Your task to perform on an android device: turn on the 12-hour format for clock Image 0: 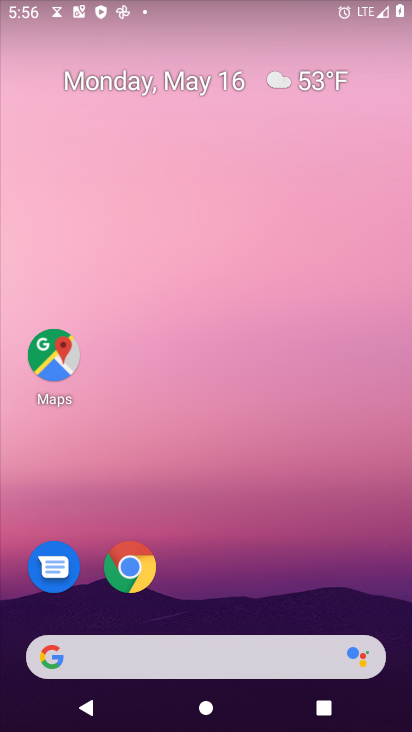
Step 0: drag from (234, 623) to (172, 32)
Your task to perform on an android device: turn on the 12-hour format for clock Image 1: 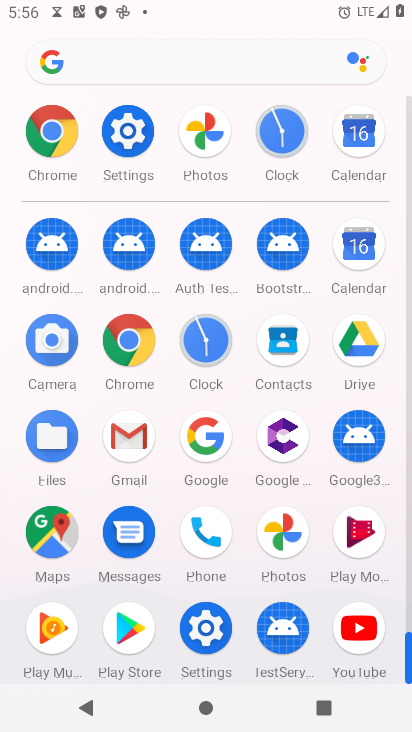
Step 1: click (218, 336)
Your task to perform on an android device: turn on the 12-hour format for clock Image 2: 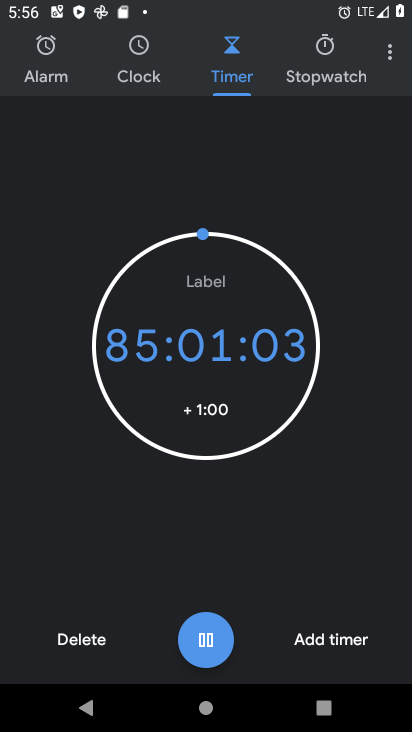
Step 2: click (387, 51)
Your task to perform on an android device: turn on the 12-hour format for clock Image 3: 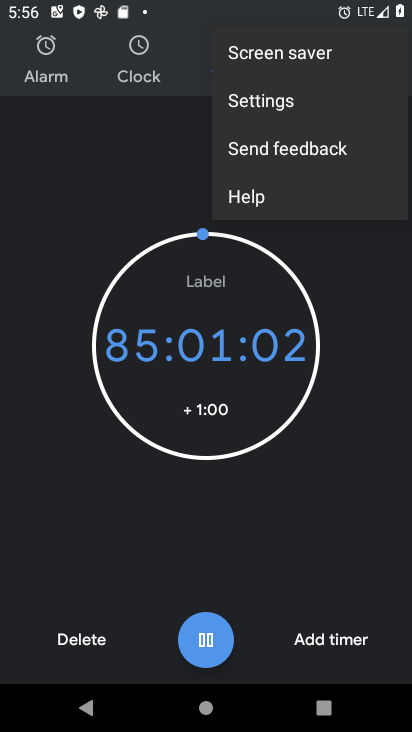
Step 3: click (281, 98)
Your task to perform on an android device: turn on the 12-hour format for clock Image 4: 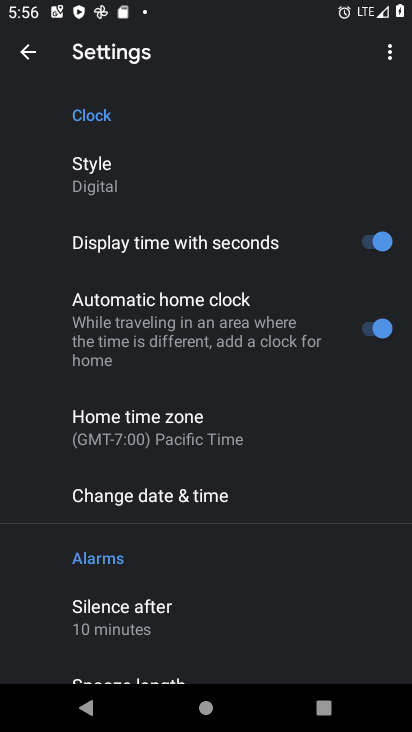
Step 4: drag from (273, 591) to (245, 310)
Your task to perform on an android device: turn on the 12-hour format for clock Image 5: 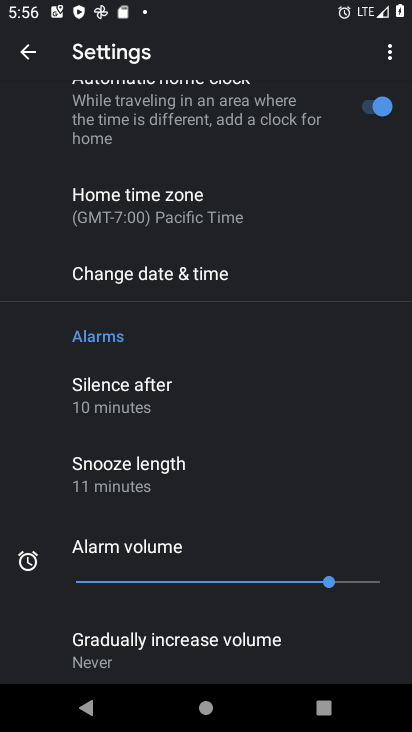
Step 5: click (176, 385)
Your task to perform on an android device: turn on the 12-hour format for clock Image 6: 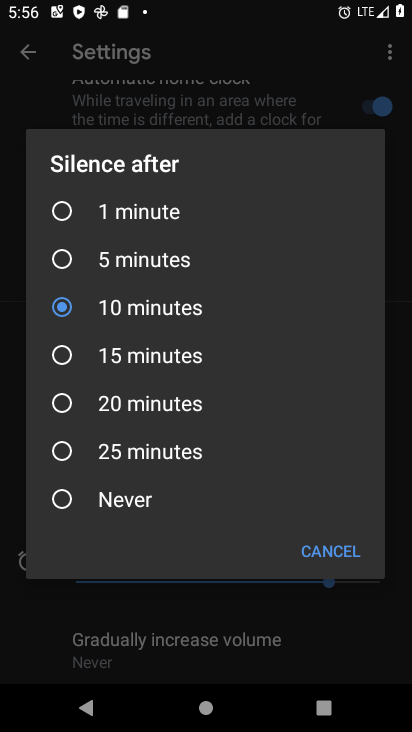
Step 6: click (326, 548)
Your task to perform on an android device: turn on the 12-hour format for clock Image 7: 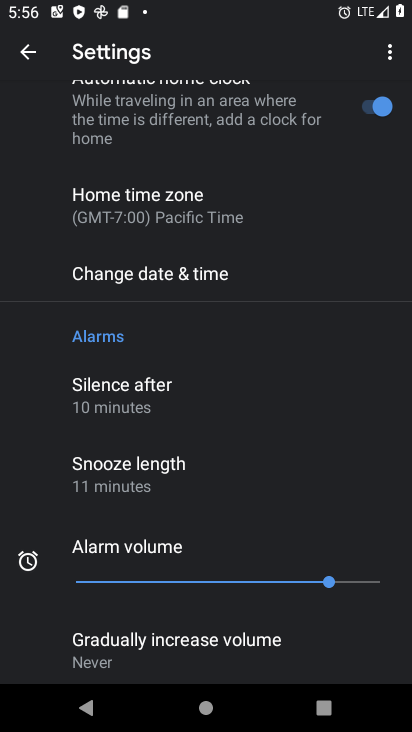
Step 7: drag from (275, 205) to (367, 542)
Your task to perform on an android device: turn on the 12-hour format for clock Image 8: 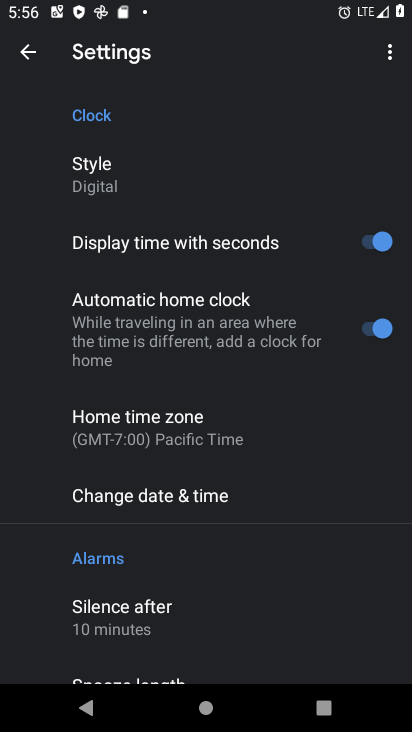
Step 8: click (244, 502)
Your task to perform on an android device: turn on the 12-hour format for clock Image 9: 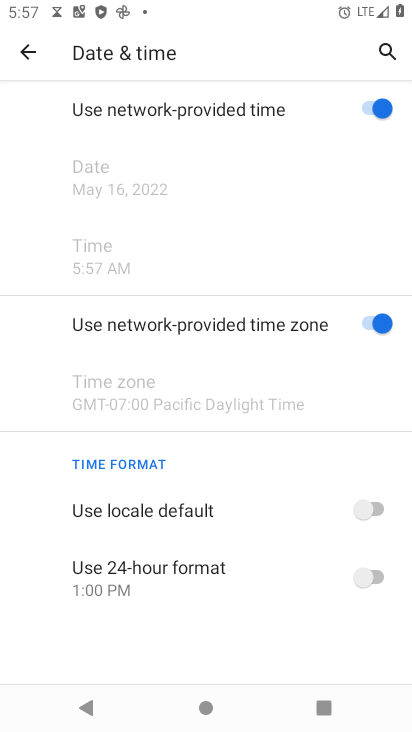
Step 9: task complete